Your task to perform on an android device: turn on improve location accuracy Image 0: 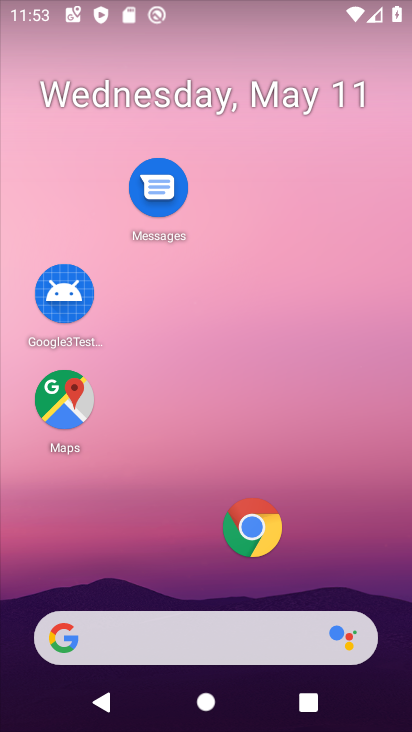
Step 0: drag from (260, 587) to (120, 64)
Your task to perform on an android device: turn on improve location accuracy Image 1: 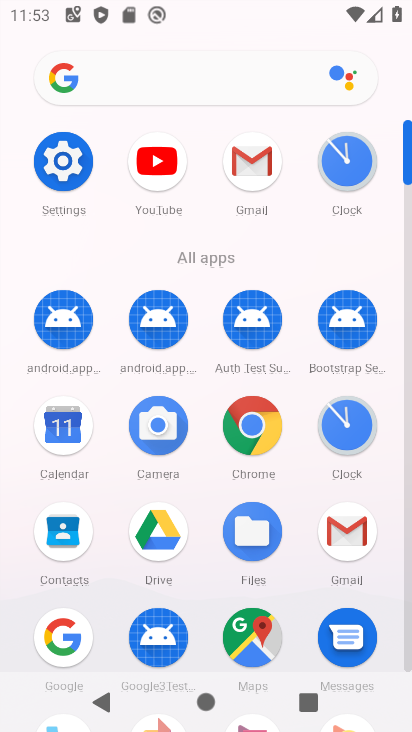
Step 1: click (57, 150)
Your task to perform on an android device: turn on improve location accuracy Image 2: 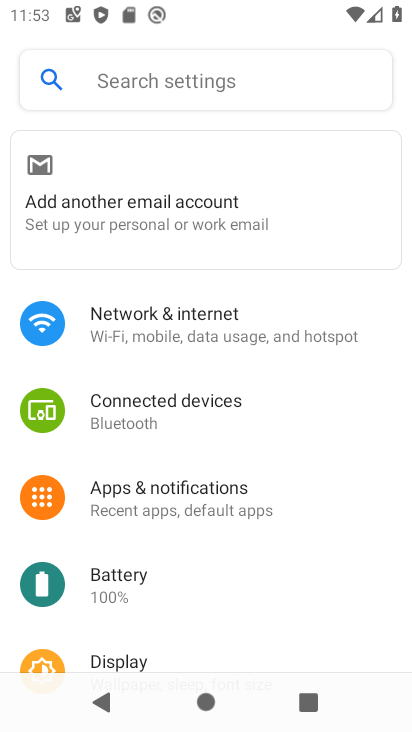
Step 2: drag from (252, 543) to (235, 98)
Your task to perform on an android device: turn on improve location accuracy Image 3: 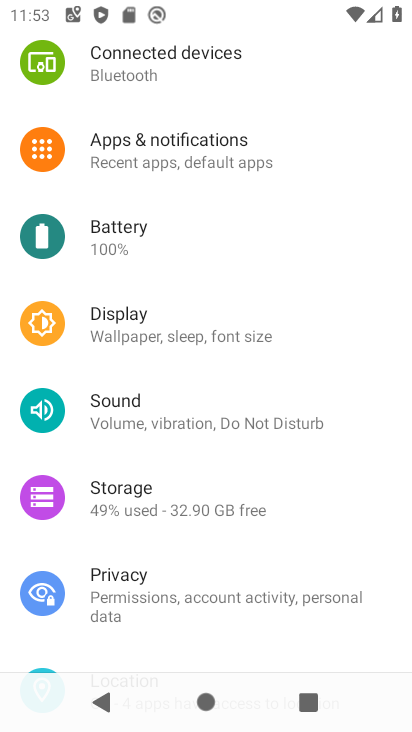
Step 3: drag from (181, 659) to (141, 169)
Your task to perform on an android device: turn on improve location accuracy Image 4: 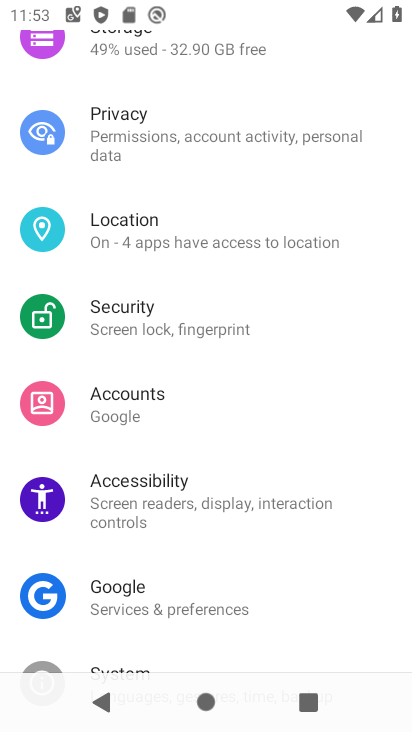
Step 4: click (131, 257)
Your task to perform on an android device: turn on improve location accuracy Image 5: 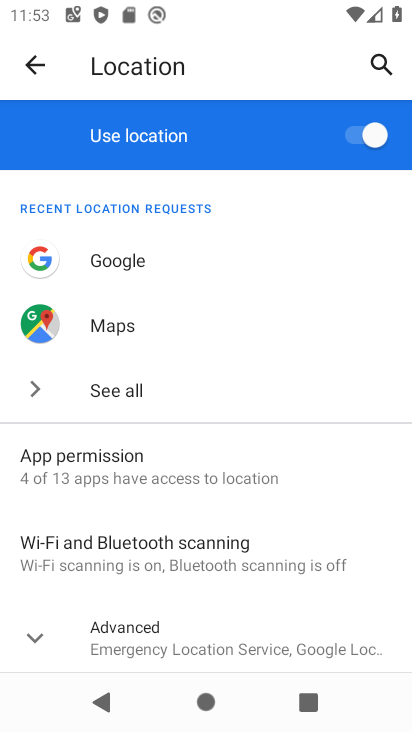
Step 5: click (172, 619)
Your task to perform on an android device: turn on improve location accuracy Image 6: 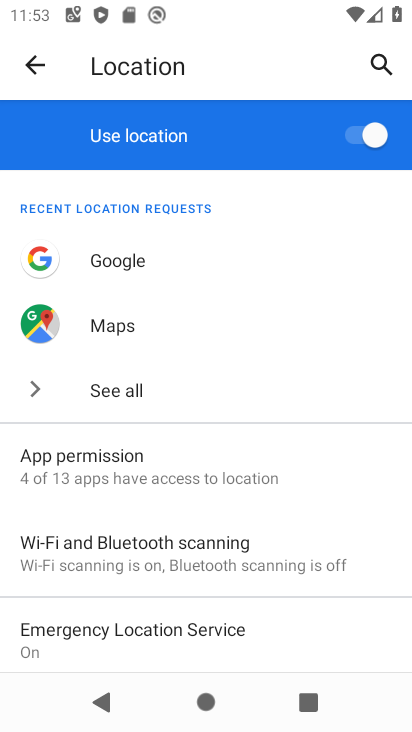
Step 6: drag from (248, 609) to (235, 114)
Your task to perform on an android device: turn on improve location accuracy Image 7: 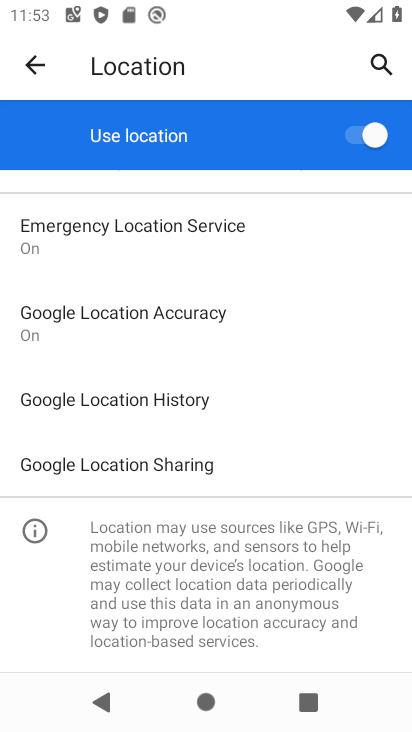
Step 7: click (149, 351)
Your task to perform on an android device: turn on improve location accuracy Image 8: 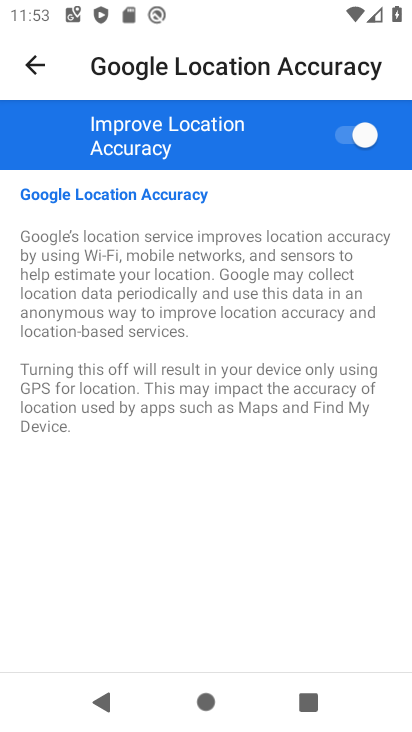
Step 8: task complete